Your task to perform on an android device: find photos in the google photos app Image 0: 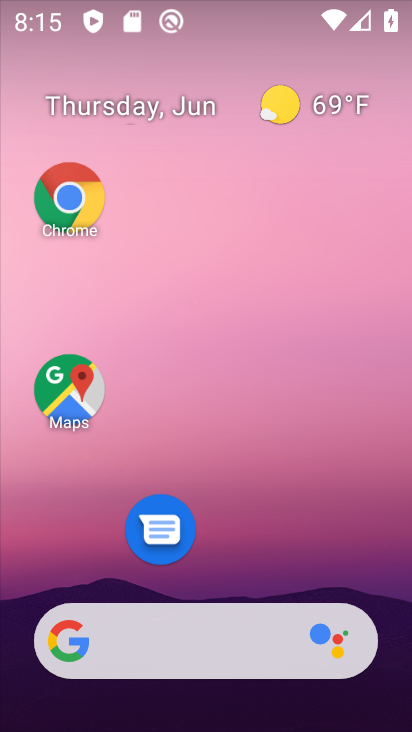
Step 0: drag from (257, 590) to (159, 167)
Your task to perform on an android device: find photos in the google photos app Image 1: 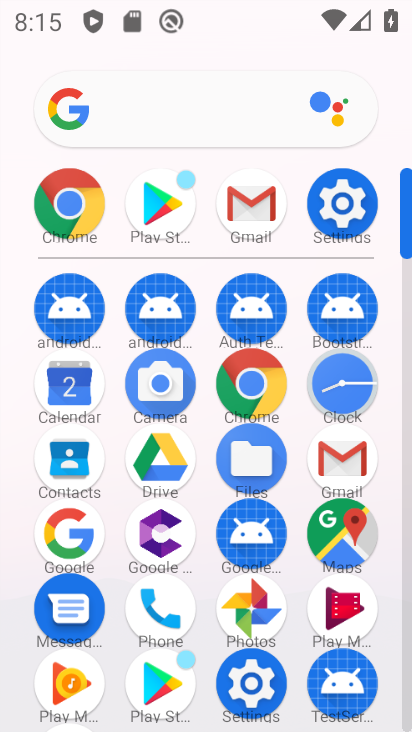
Step 1: click (257, 599)
Your task to perform on an android device: find photos in the google photos app Image 2: 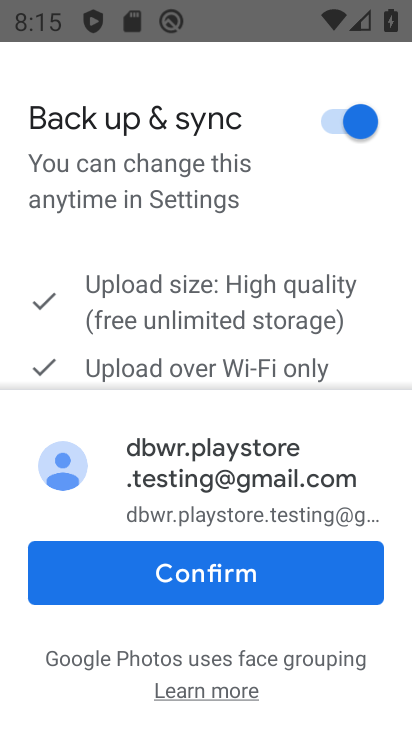
Step 2: click (176, 586)
Your task to perform on an android device: find photos in the google photos app Image 3: 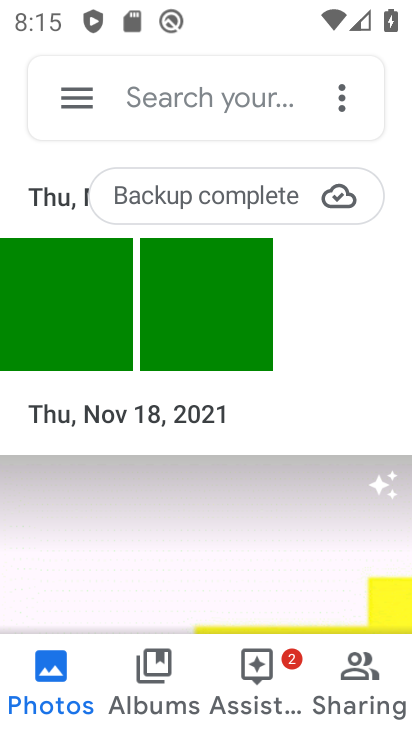
Step 3: task complete